Your task to perform on an android device: turn on data saver in the chrome app Image 0: 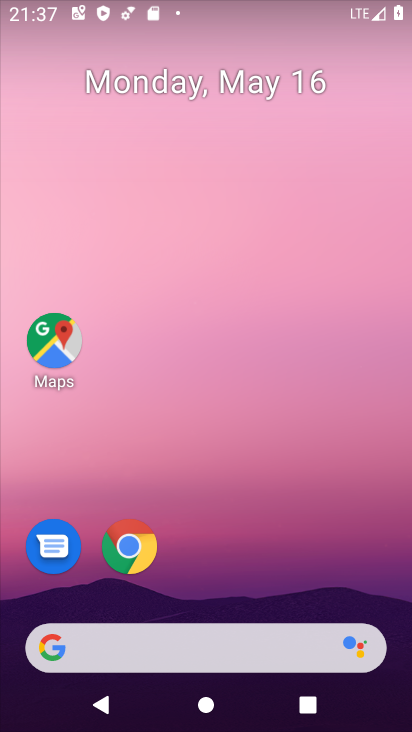
Step 0: drag from (264, 670) to (313, 202)
Your task to perform on an android device: turn on data saver in the chrome app Image 1: 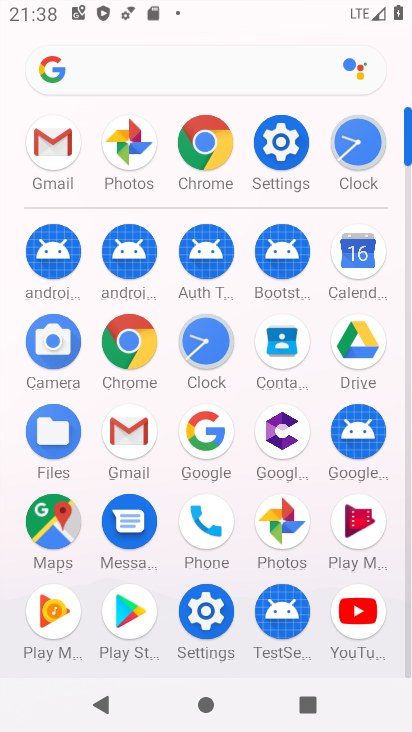
Step 1: click (207, 153)
Your task to perform on an android device: turn on data saver in the chrome app Image 2: 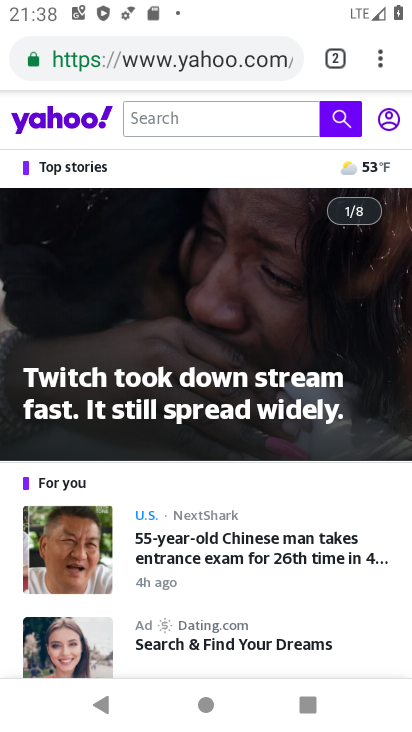
Step 2: click (380, 65)
Your task to perform on an android device: turn on data saver in the chrome app Image 3: 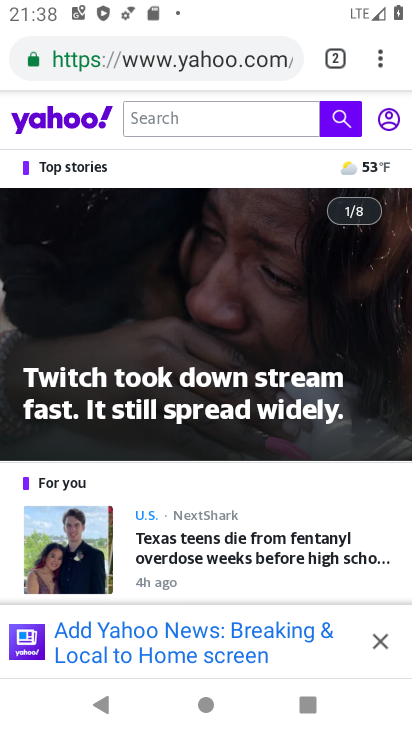
Step 3: click (372, 66)
Your task to perform on an android device: turn on data saver in the chrome app Image 4: 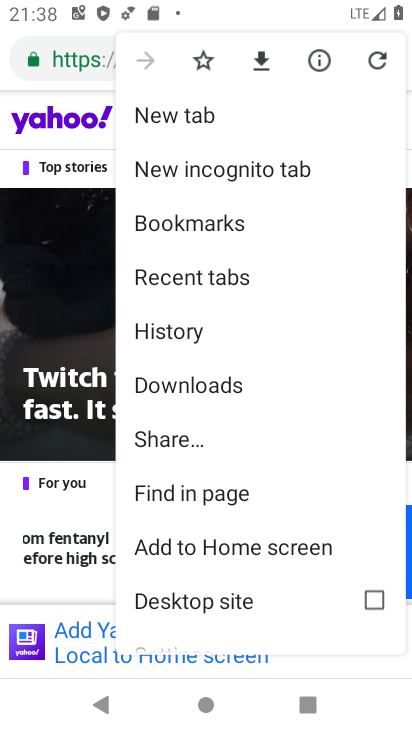
Step 4: drag from (198, 515) to (277, 314)
Your task to perform on an android device: turn on data saver in the chrome app Image 5: 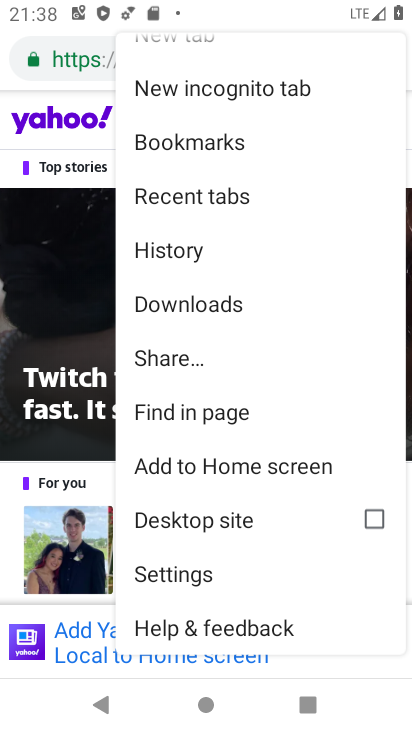
Step 5: click (190, 573)
Your task to perform on an android device: turn on data saver in the chrome app Image 6: 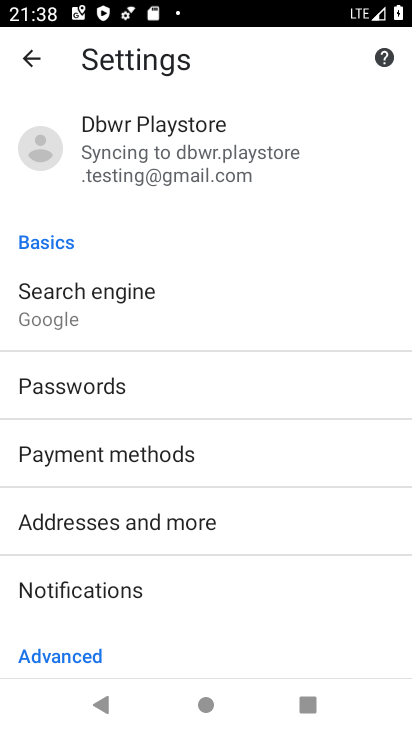
Step 6: drag from (129, 621) to (215, 475)
Your task to perform on an android device: turn on data saver in the chrome app Image 7: 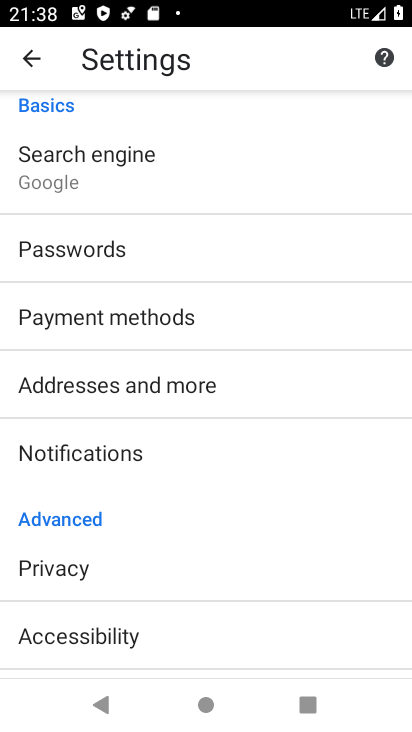
Step 7: drag from (156, 543) to (217, 432)
Your task to perform on an android device: turn on data saver in the chrome app Image 8: 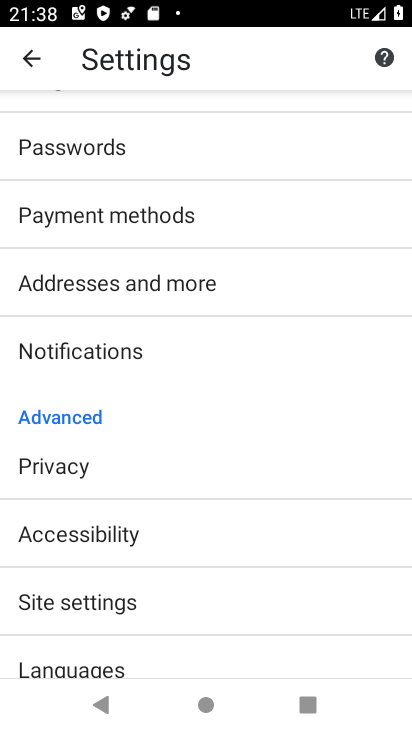
Step 8: drag from (111, 599) to (189, 462)
Your task to perform on an android device: turn on data saver in the chrome app Image 9: 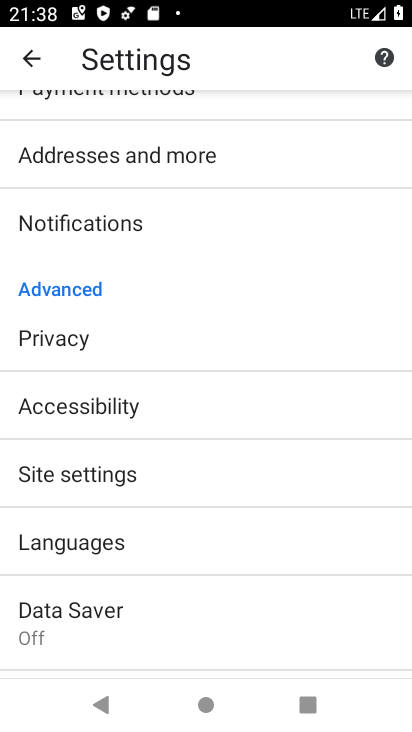
Step 9: click (69, 608)
Your task to perform on an android device: turn on data saver in the chrome app Image 10: 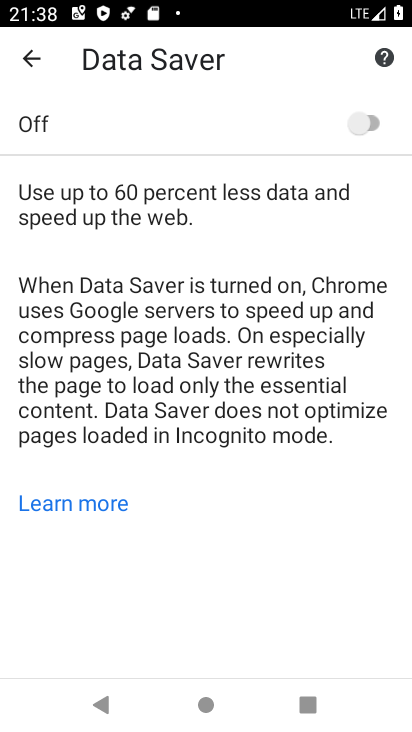
Step 10: click (346, 133)
Your task to perform on an android device: turn on data saver in the chrome app Image 11: 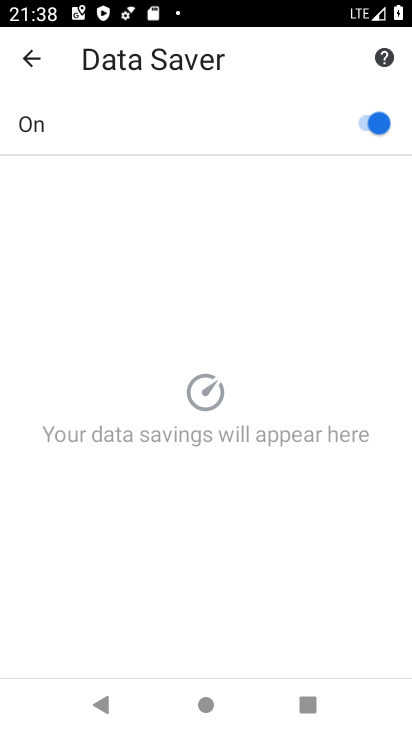
Step 11: task complete